Your task to perform on an android device: open chrome privacy settings Image 0: 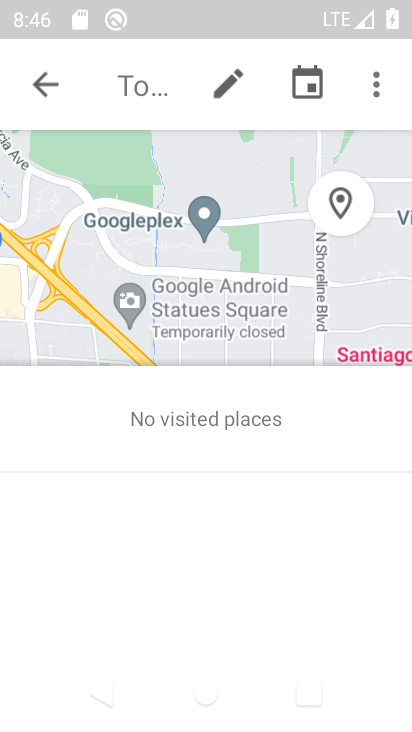
Step 0: press home button
Your task to perform on an android device: open chrome privacy settings Image 1: 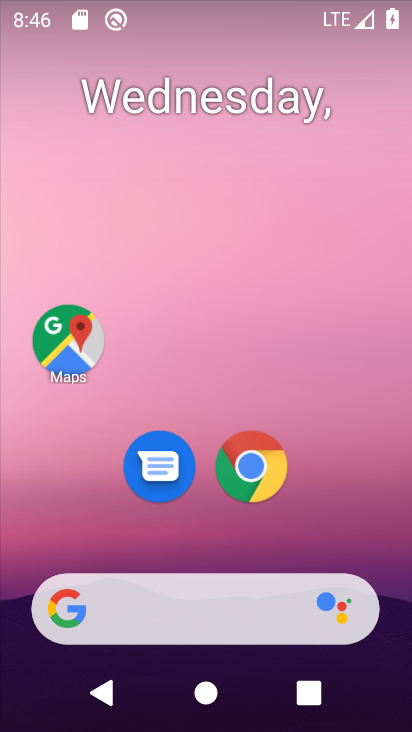
Step 1: click (254, 472)
Your task to perform on an android device: open chrome privacy settings Image 2: 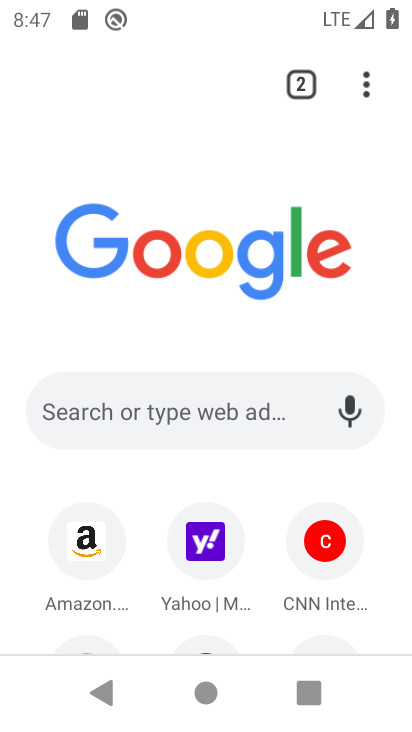
Step 2: click (369, 93)
Your task to perform on an android device: open chrome privacy settings Image 3: 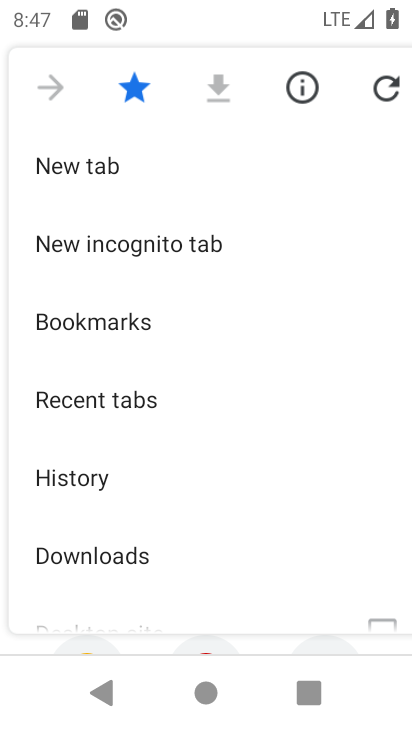
Step 3: drag from (124, 590) to (125, 201)
Your task to perform on an android device: open chrome privacy settings Image 4: 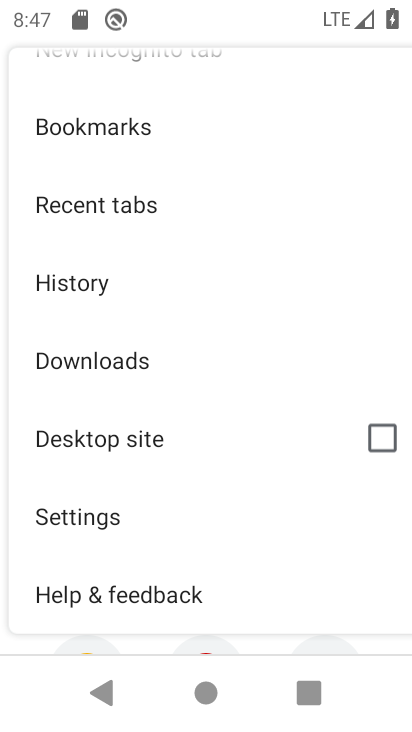
Step 4: click (92, 508)
Your task to perform on an android device: open chrome privacy settings Image 5: 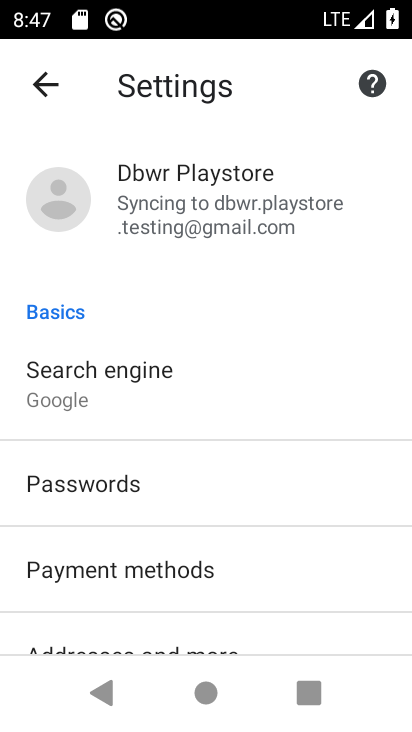
Step 5: drag from (215, 632) to (260, 316)
Your task to perform on an android device: open chrome privacy settings Image 6: 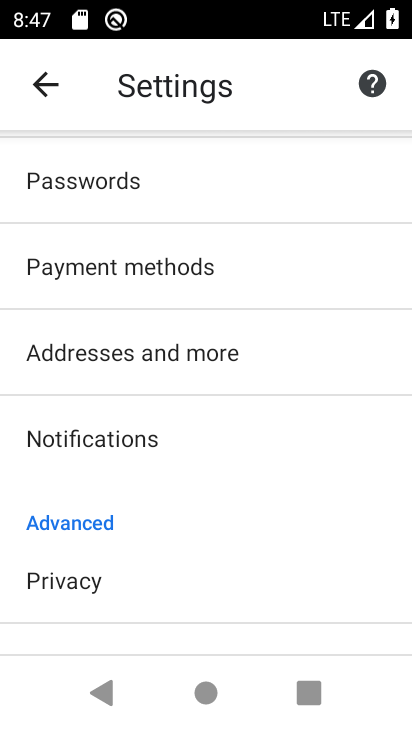
Step 6: click (78, 573)
Your task to perform on an android device: open chrome privacy settings Image 7: 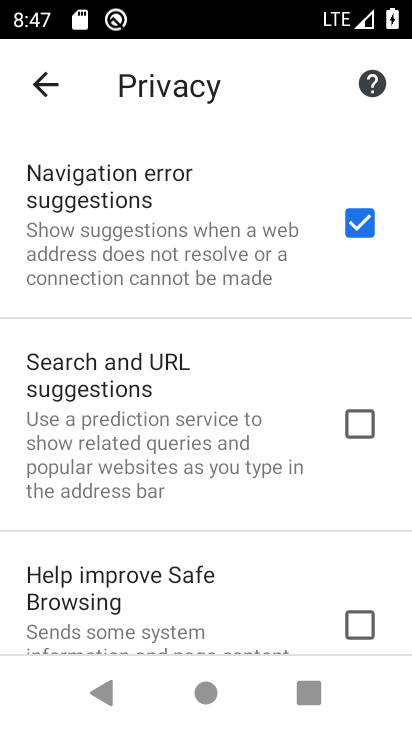
Step 7: task complete